Your task to perform on an android device: What's the latest news in astronomy? Image 0: 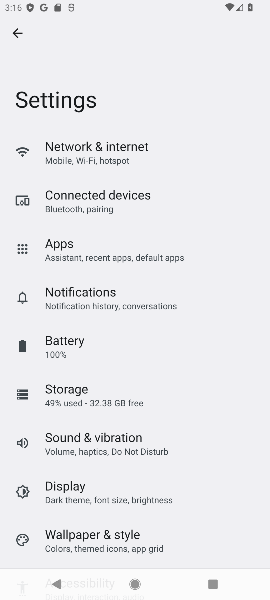
Step 0: press home button
Your task to perform on an android device: What's the latest news in astronomy? Image 1: 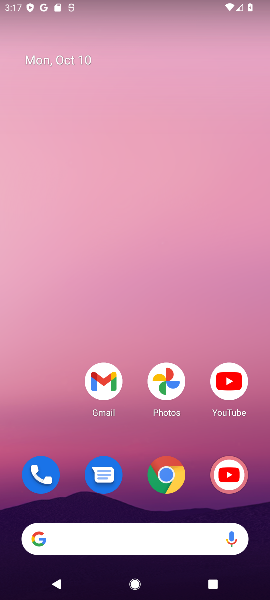
Step 1: click (180, 347)
Your task to perform on an android device: What's the latest news in astronomy? Image 2: 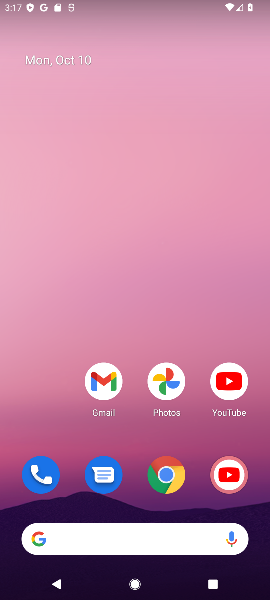
Step 2: drag from (137, 487) to (146, 190)
Your task to perform on an android device: What's the latest news in astronomy? Image 3: 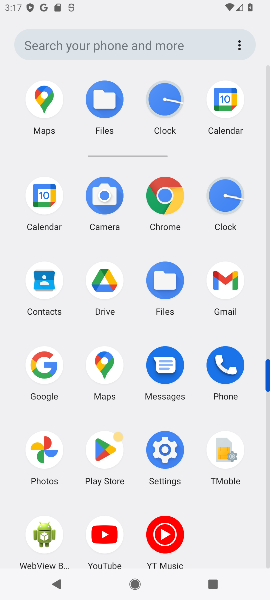
Step 3: click (41, 375)
Your task to perform on an android device: What's the latest news in astronomy? Image 4: 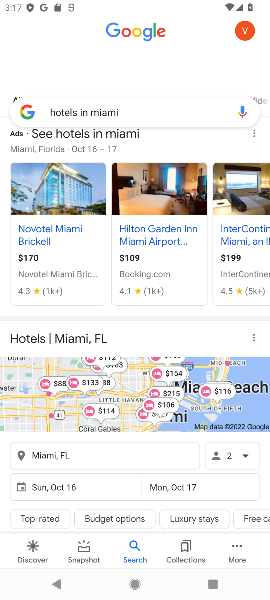
Step 4: click (191, 111)
Your task to perform on an android device: What's the latest news in astronomy? Image 5: 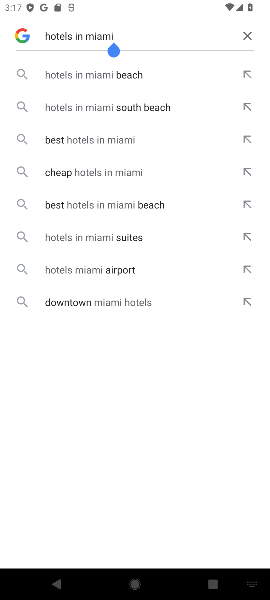
Step 5: click (244, 35)
Your task to perform on an android device: What's the latest news in astronomy? Image 6: 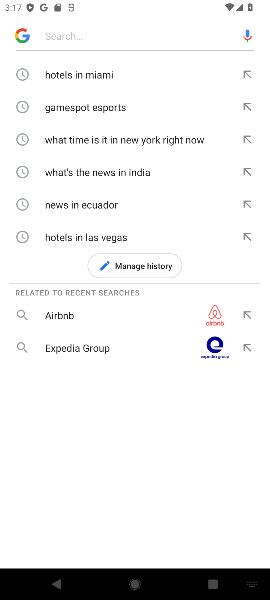
Step 6: type "latest news in astronomy?"
Your task to perform on an android device: What's the latest news in astronomy? Image 7: 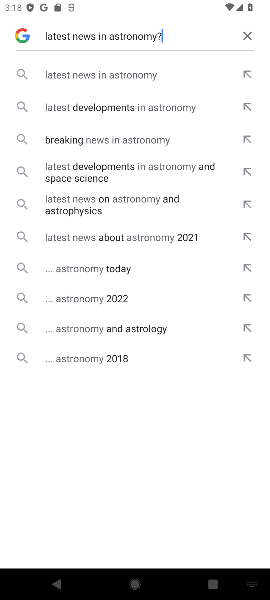
Step 7: click (79, 71)
Your task to perform on an android device: What's the latest news in astronomy? Image 8: 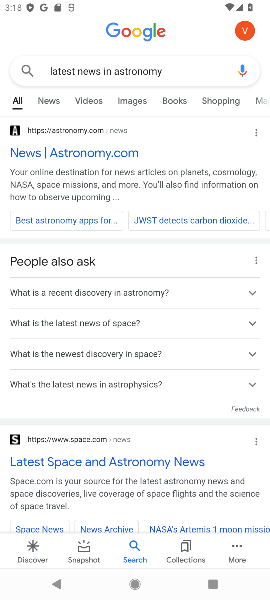
Step 8: click (53, 101)
Your task to perform on an android device: What's the latest news in astronomy? Image 9: 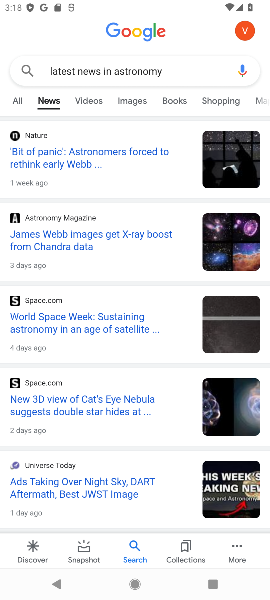
Step 9: task complete